Your task to perform on an android device: Search for the best way to make a resume. Image 0: 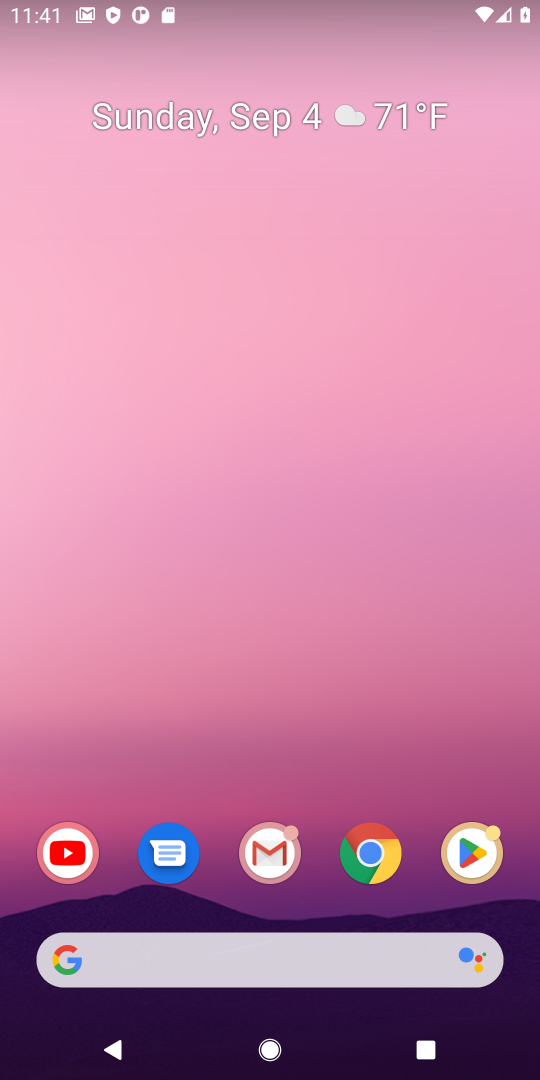
Step 0: click (365, 855)
Your task to perform on an android device: Search for the best way to make a resume. Image 1: 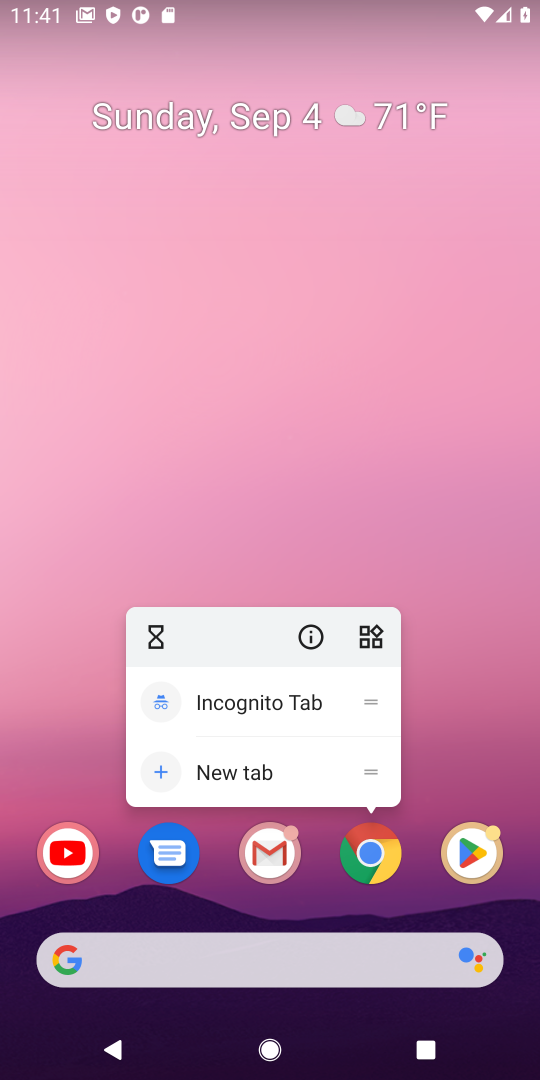
Step 1: click (372, 857)
Your task to perform on an android device: Search for the best way to make a resume. Image 2: 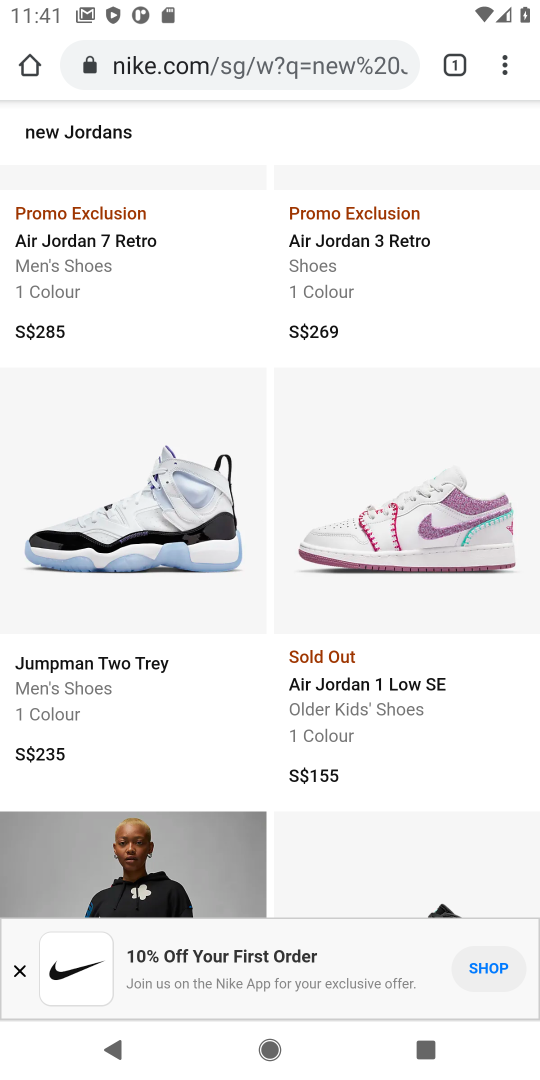
Step 2: click (352, 53)
Your task to perform on an android device: Search for the best way to make a resume. Image 3: 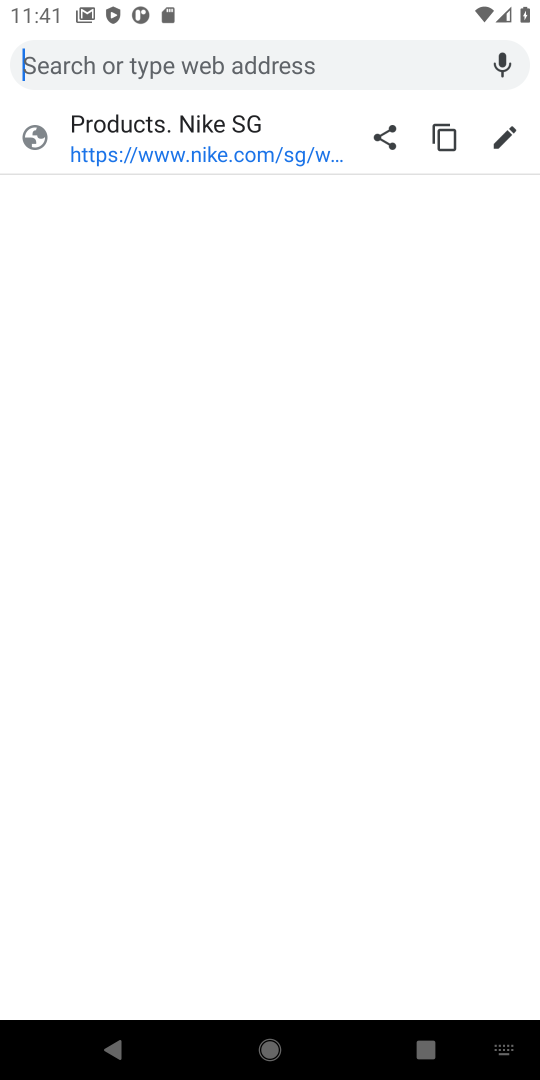
Step 3: type "best way to make a resume"
Your task to perform on an android device: Search for the best way to make a resume. Image 4: 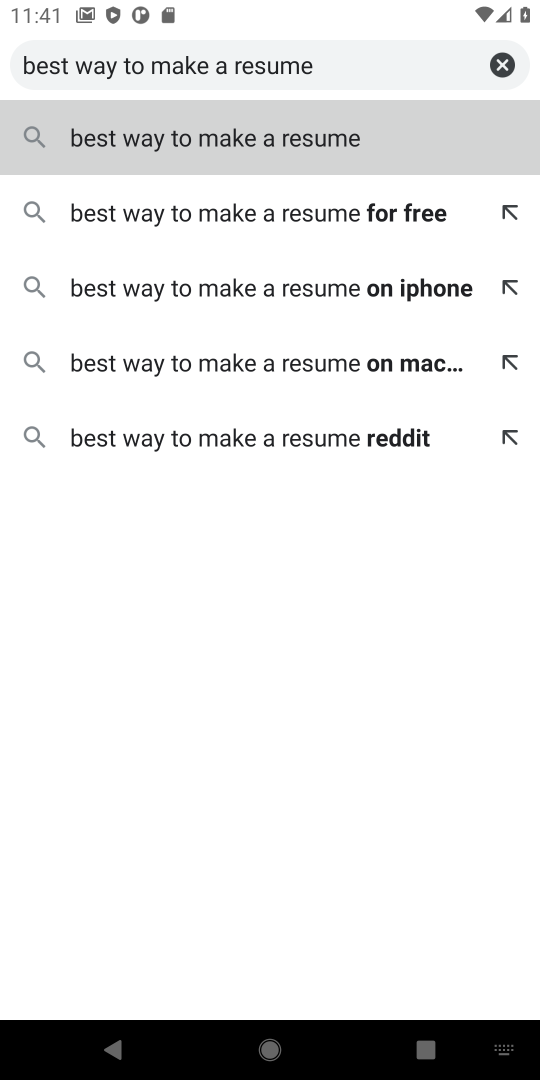
Step 4: press enter
Your task to perform on an android device: Search for the best way to make a resume. Image 5: 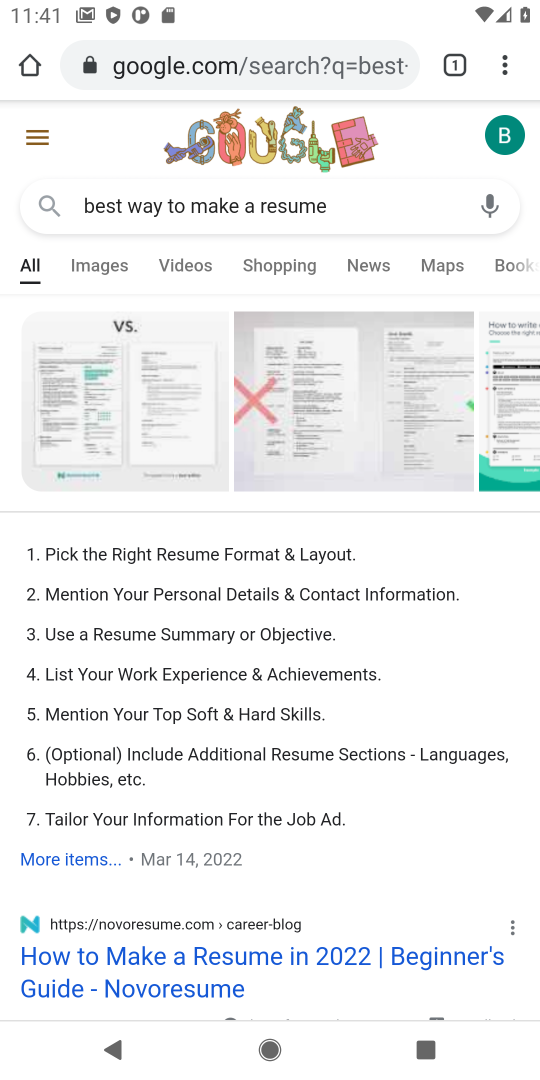
Step 5: task complete